Your task to perform on an android device: Open Wikipedia Image 0: 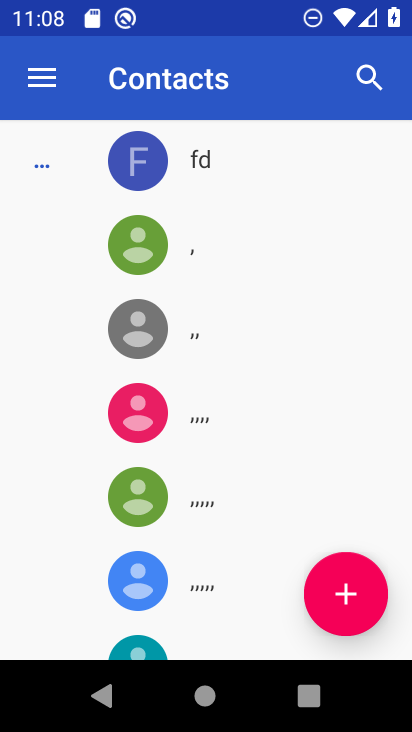
Step 0: press home button
Your task to perform on an android device: Open Wikipedia Image 1: 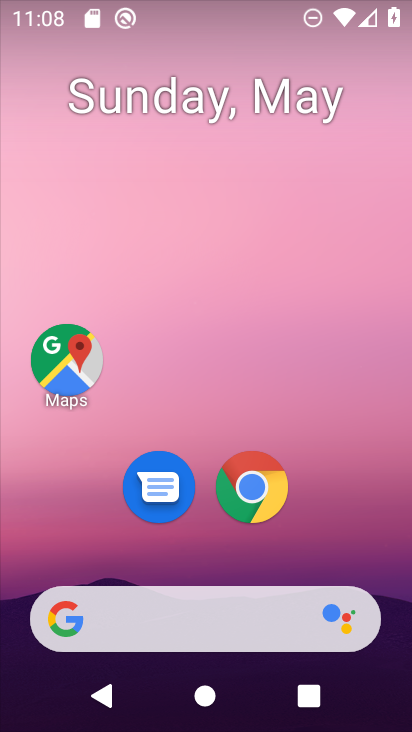
Step 1: click (275, 495)
Your task to perform on an android device: Open Wikipedia Image 2: 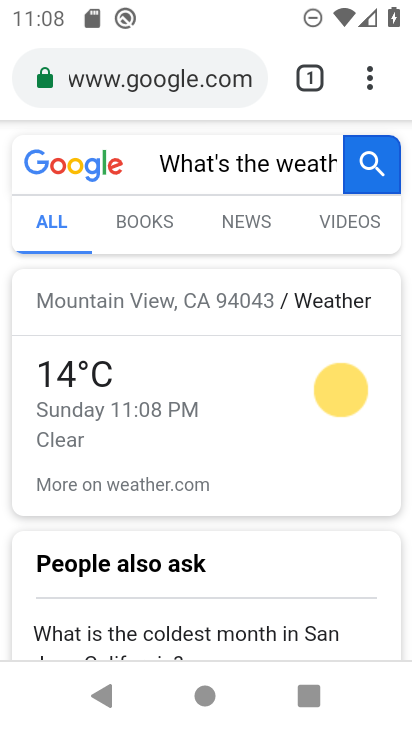
Step 2: click (314, 77)
Your task to perform on an android device: Open Wikipedia Image 3: 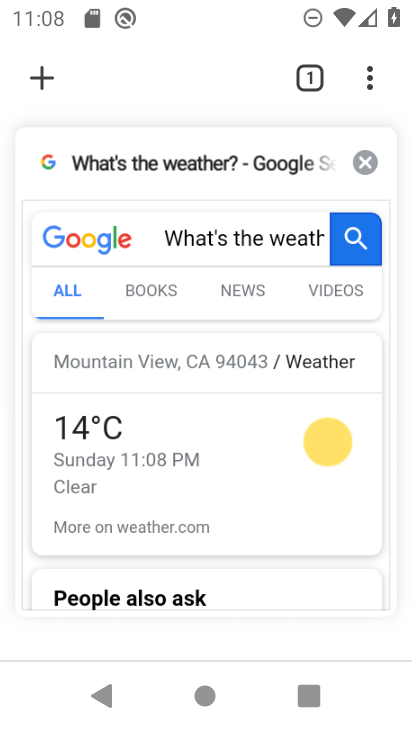
Step 3: click (38, 64)
Your task to perform on an android device: Open Wikipedia Image 4: 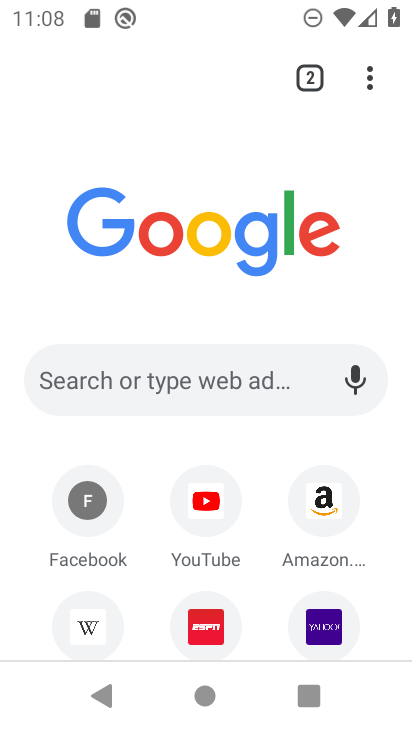
Step 4: click (91, 625)
Your task to perform on an android device: Open Wikipedia Image 5: 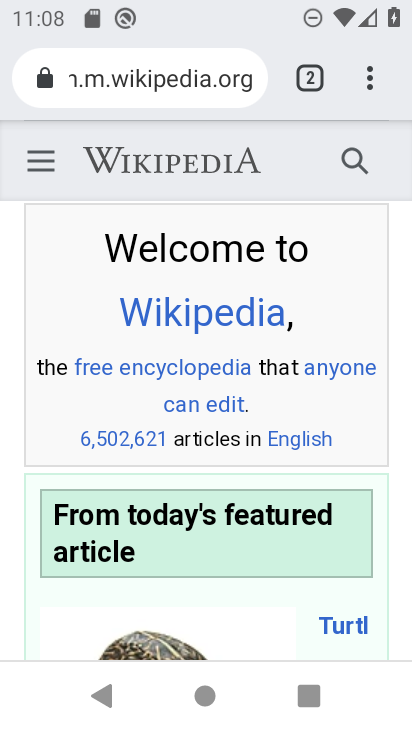
Step 5: task complete